Your task to perform on an android device: read, delete, or share a saved page in the chrome app Image 0: 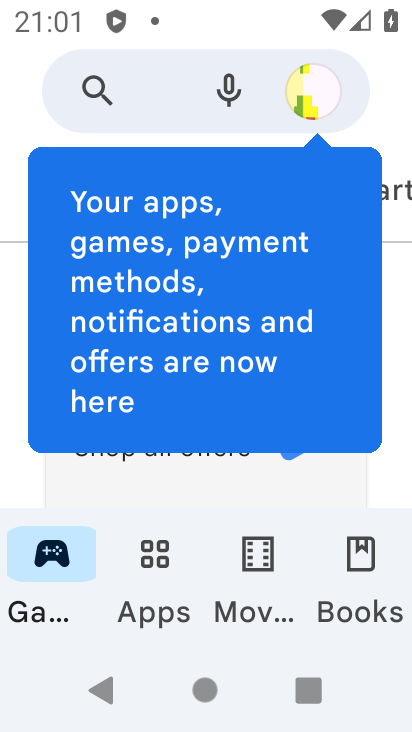
Step 0: press home button
Your task to perform on an android device: read, delete, or share a saved page in the chrome app Image 1: 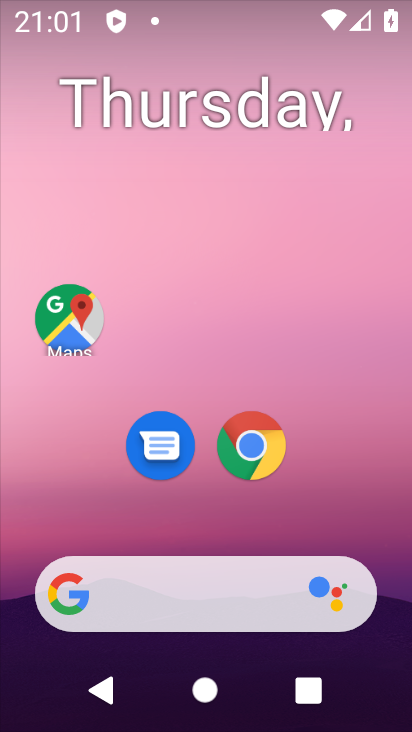
Step 1: click (252, 448)
Your task to perform on an android device: read, delete, or share a saved page in the chrome app Image 2: 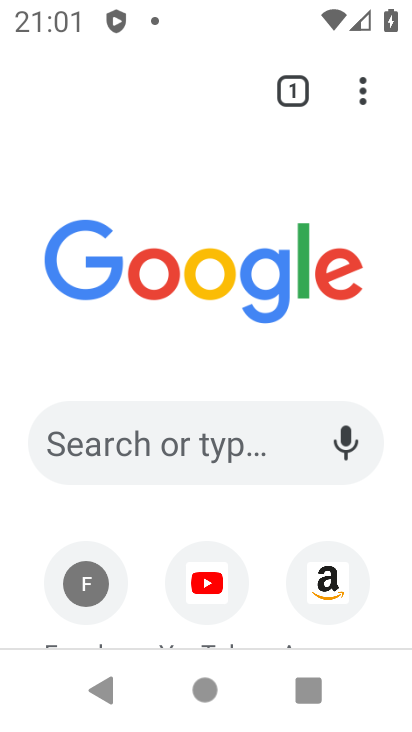
Step 2: drag from (9, 616) to (172, 291)
Your task to perform on an android device: read, delete, or share a saved page in the chrome app Image 3: 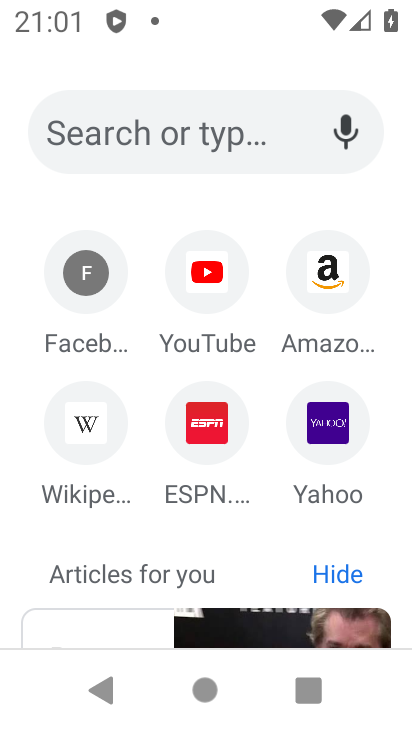
Step 3: click (83, 276)
Your task to perform on an android device: read, delete, or share a saved page in the chrome app Image 4: 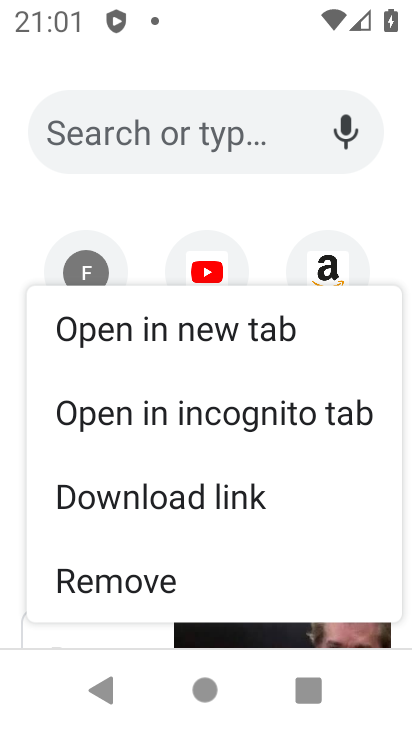
Step 4: click (138, 583)
Your task to perform on an android device: read, delete, or share a saved page in the chrome app Image 5: 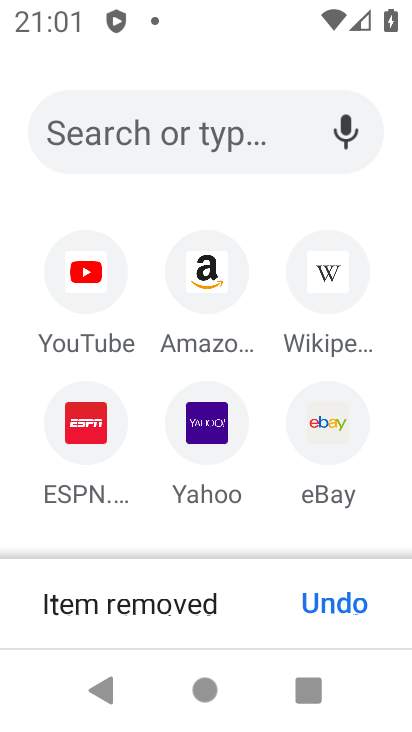
Step 5: task complete